Your task to perform on an android device: turn off location Image 0: 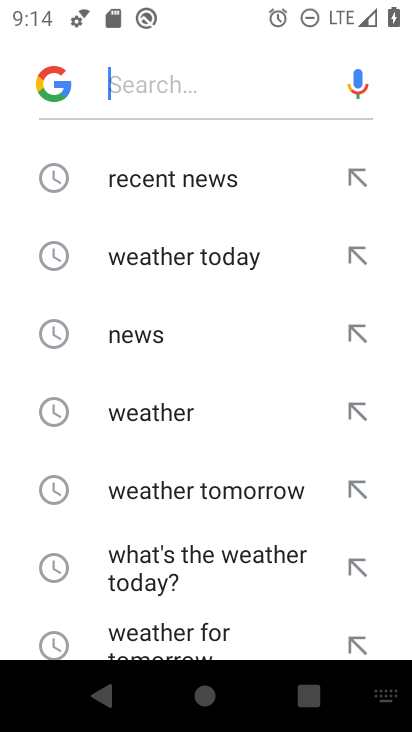
Step 0: press home button
Your task to perform on an android device: turn off location Image 1: 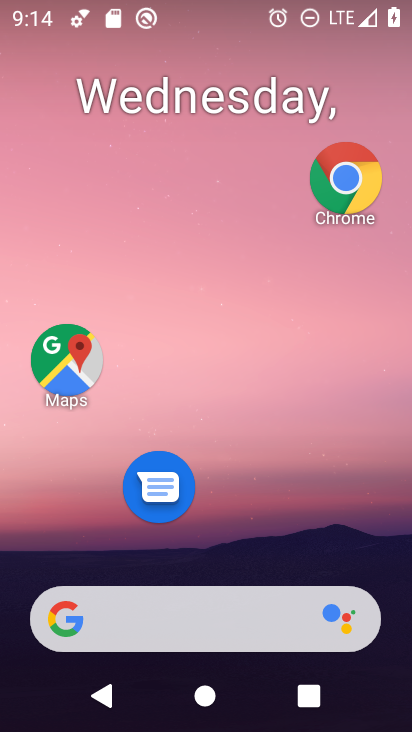
Step 1: drag from (259, 658) to (285, 174)
Your task to perform on an android device: turn off location Image 2: 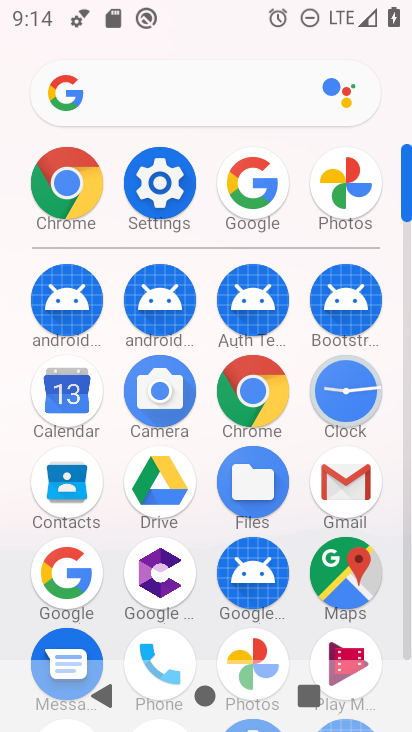
Step 2: click (163, 176)
Your task to perform on an android device: turn off location Image 3: 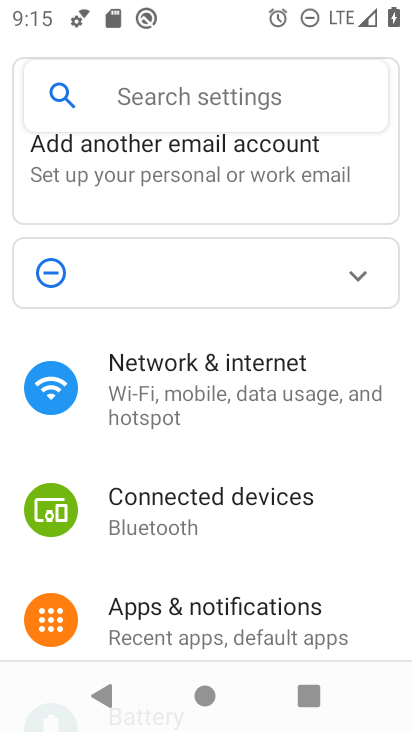
Step 3: drag from (210, 575) to (247, 256)
Your task to perform on an android device: turn off location Image 4: 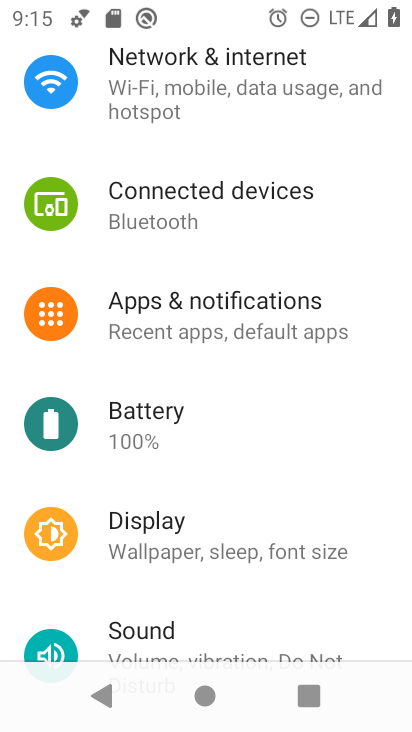
Step 4: drag from (202, 604) to (230, 219)
Your task to perform on an android device: turn off location Image 5: 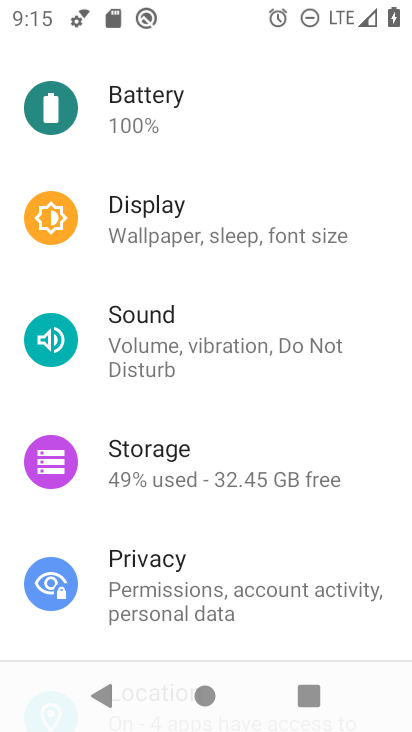
Step 5: drag from (234, 603) to (263, 261)
Your task to perform on an android device: turn off location Image 6: 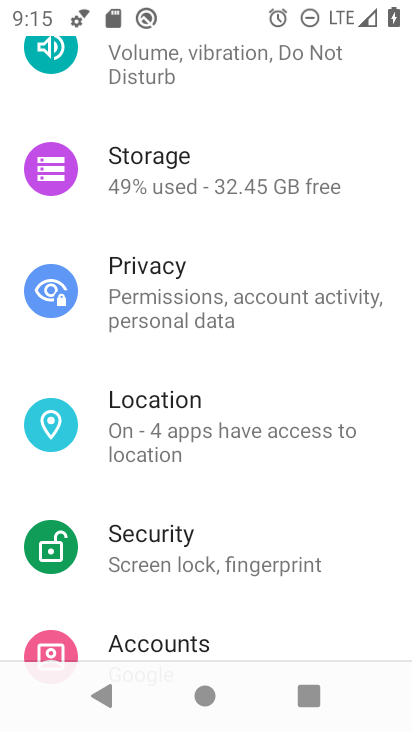
Step 6: click (256, 446)
Your task to perform on an android device: turn off location Image 7: 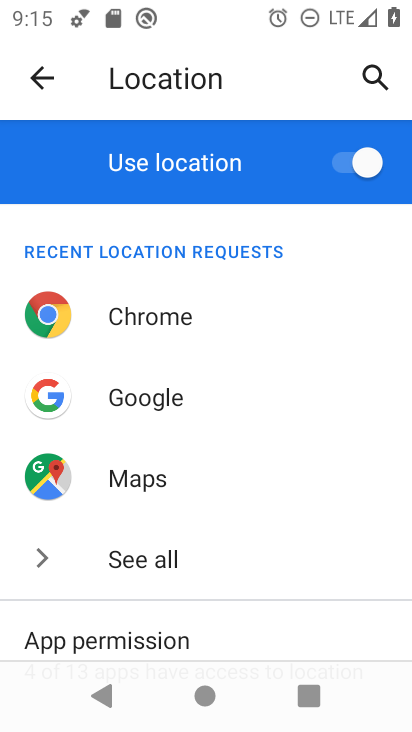
Step 7: click (285, 152)
Your task to perform on an android device: turn off location Image 8: 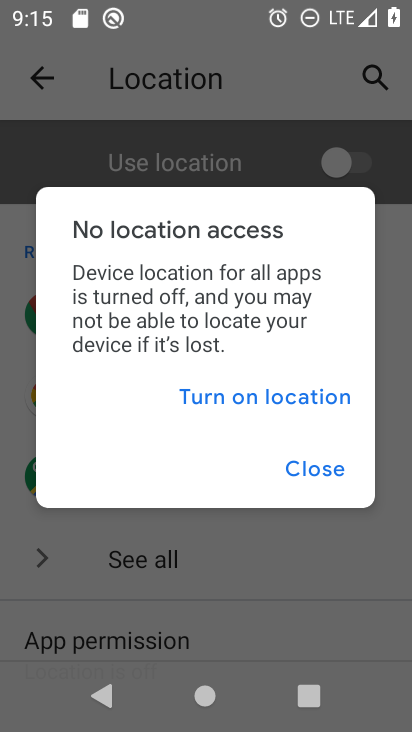
Step 8: click (298, 467)
Your task to perform on an android device: turn off location Image 9: 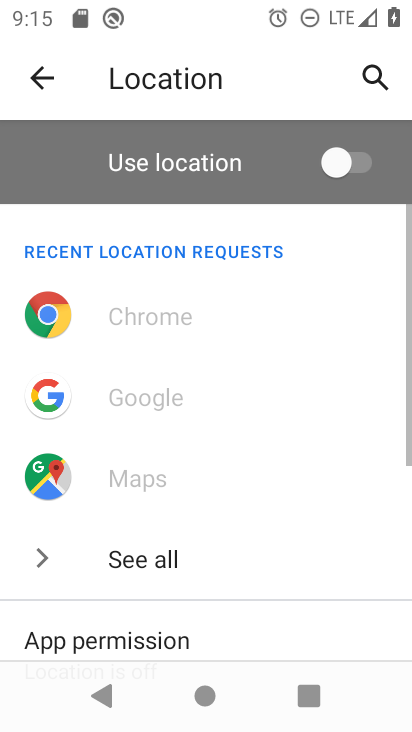
Step 9: task complete